Your task to perform on an android device: Do I have any events this weekend? Image 0: 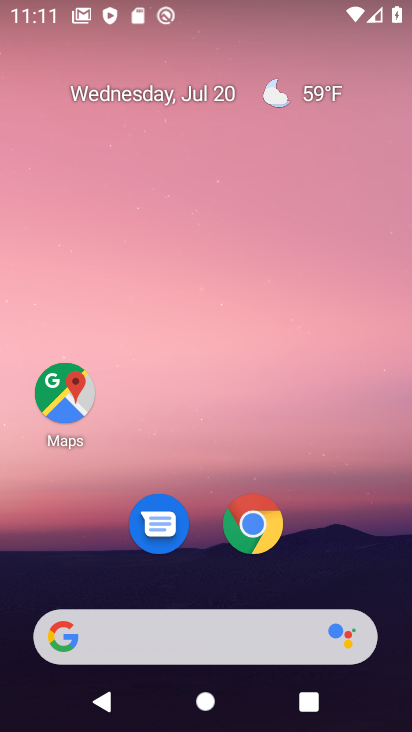
Step 0: drag from (145, 640) to (248, 179)
Your task to perform on an android device: Do I have any events this weekend? Image 1: 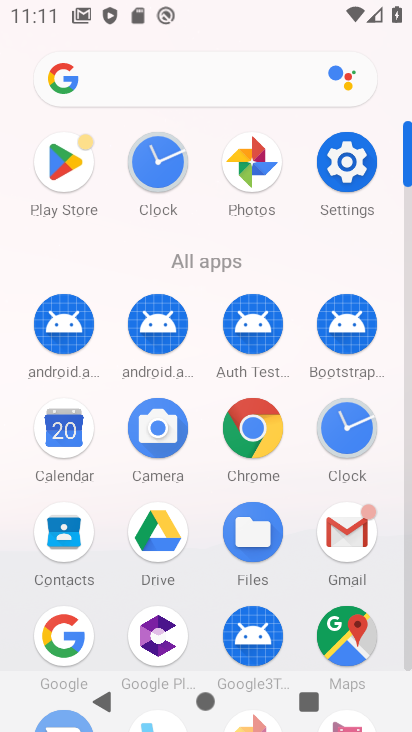
Step 1: click (62, 447)
Your task to perform on an android device: Do I have any events this weekend? Image 2: 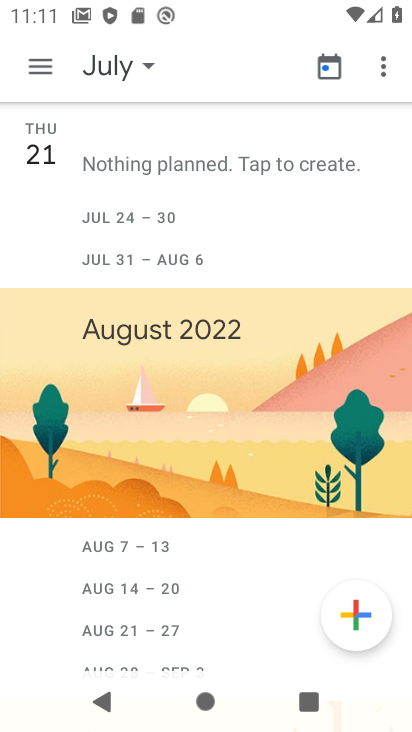
Step 2: click (114, 67)
Your task to perform on an android device: Do I have any events this weekend? Image 3: 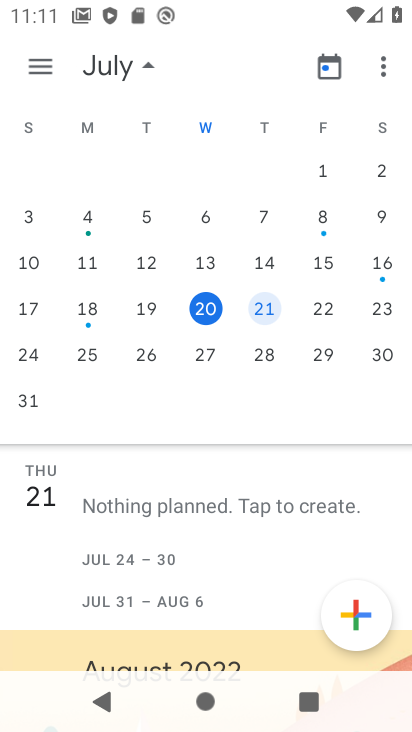
Step 3: click (377, 312)
Your task to perform on an android device: Do I have any events this weekend? Image 4: 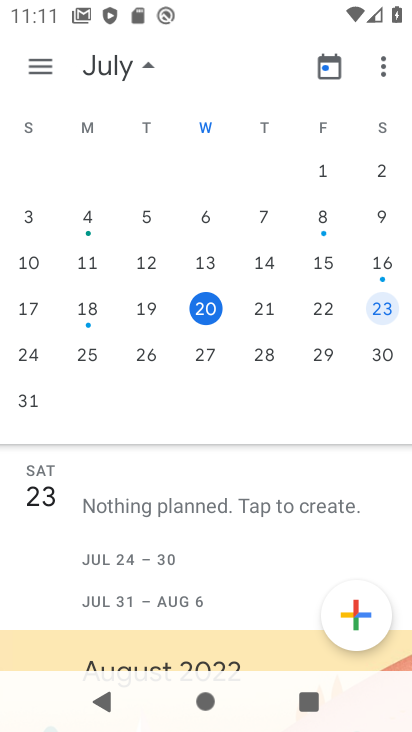
Step 4: click (35, 66)
Your task to perform on an android device: Do I have any events this weekend? Image 5: 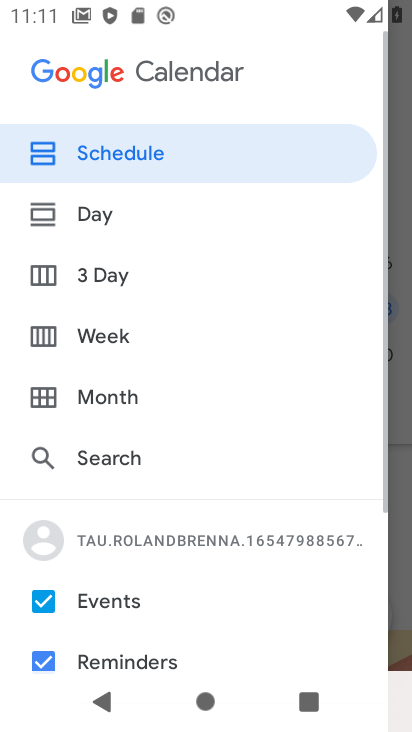
Step 5: click (110, 154)
Your task to perform on an android device: Do I have any events this weekend? Image 6: 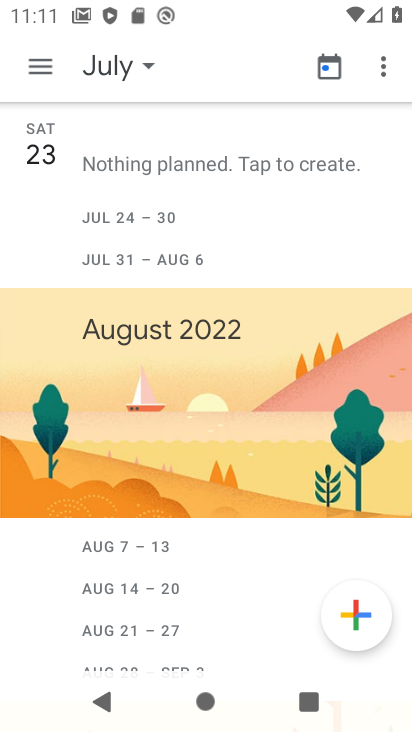
Step 6: task complete